Your task to perform on an android device: Show me the best rated coffee table on Ikea Image 0: 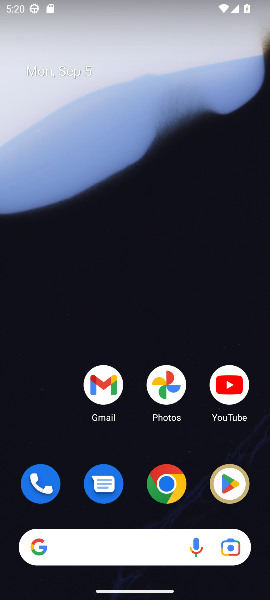
Step 0: click (165, 487)
Your task to perform on an android device: Show me the best rated coffee table on Ikea Image 1: 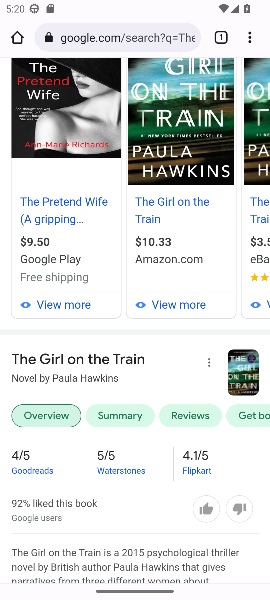
Step 1: click (159, 29)
Your task to perform on an android device: Show me the best rated coffee table on Ikea Image 2: 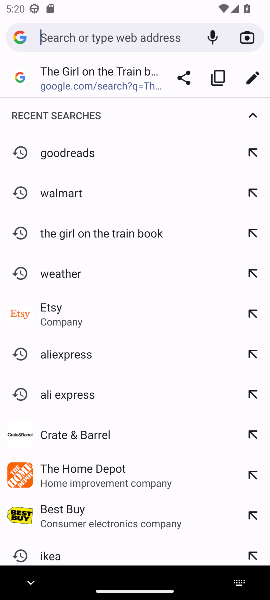
Step 2: type " Ikea"
Your task to perform on an android device: Show me the best rated coffee table on Ikea Image 3: 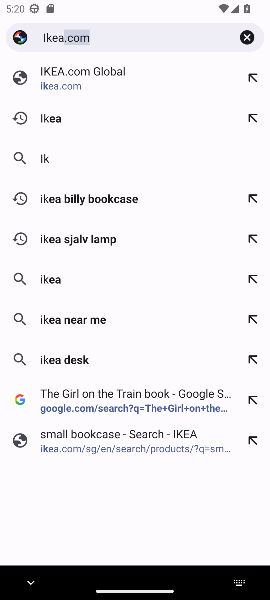
Step 3: press enter
Your task to perform on an android device: Show me the best rated coffee table on Ikea Image 4: 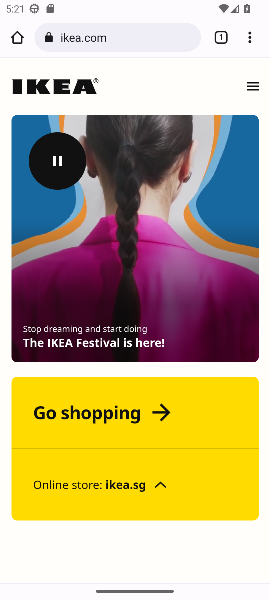
Step 4: click (99, 408)
Your task to perform on an android device: Show me the best rated coffee table on Ikea Image 5: 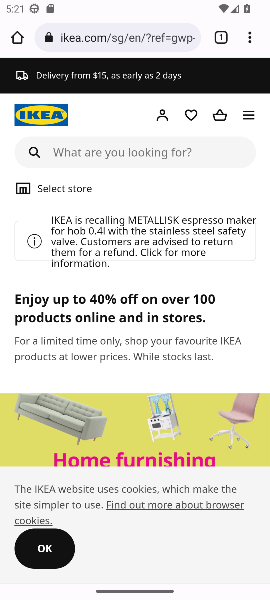
Step 5: click (149, 150)
Your task to perform on an android device: Show me the best rated coffee table on Ikea Image 6: 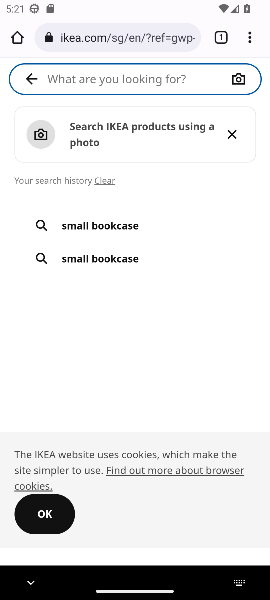
Step 6: type " coffee table"
Your task to perform on an android device: Show me the best rated coffee table on Ikea Image 7: 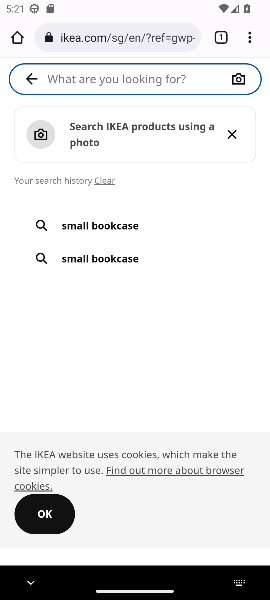
Step 7: press enter
Your task to perform on an android device: Show me the best rated coffee table on Ikea Image 8: 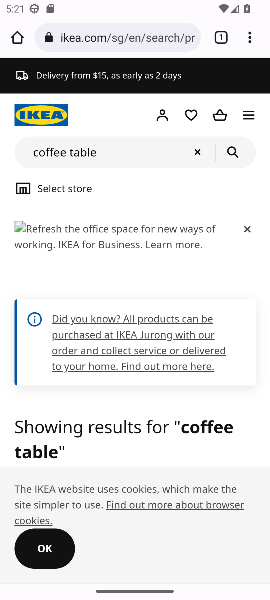
Step 8: task complete